Your task to perform on an android device: toggle data saver in the chrome app Image 0: 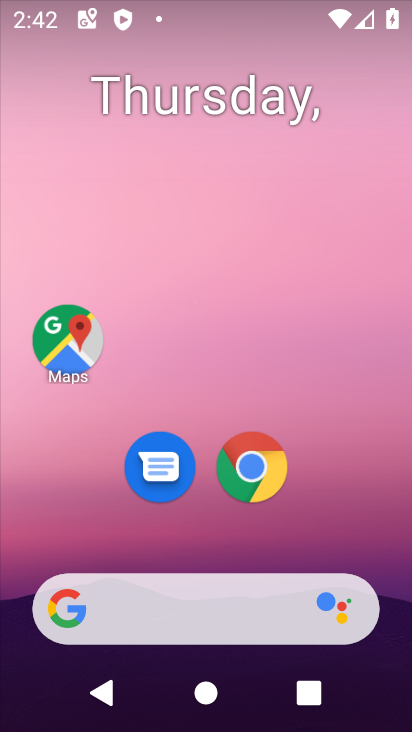
Step 0: drag from (213, 522) to (254, 186)
Your task to perform on an android device: toggle data saver in the chrome app Image 1: 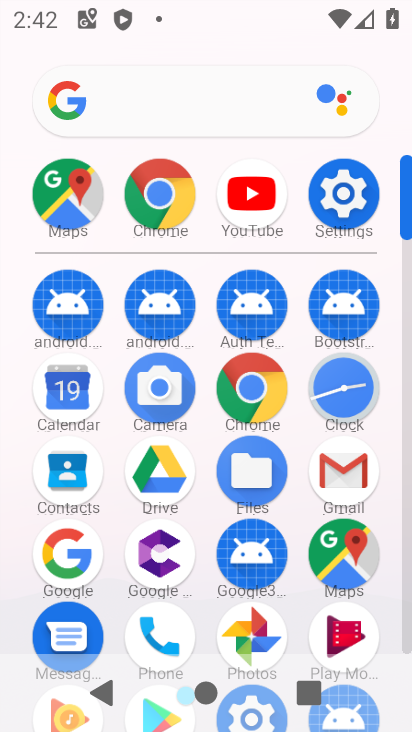
Step 1: drag from (209, 590) to (204, 247)
Your task to perform on an android device: toggle data saver in the chrome app Image 2: 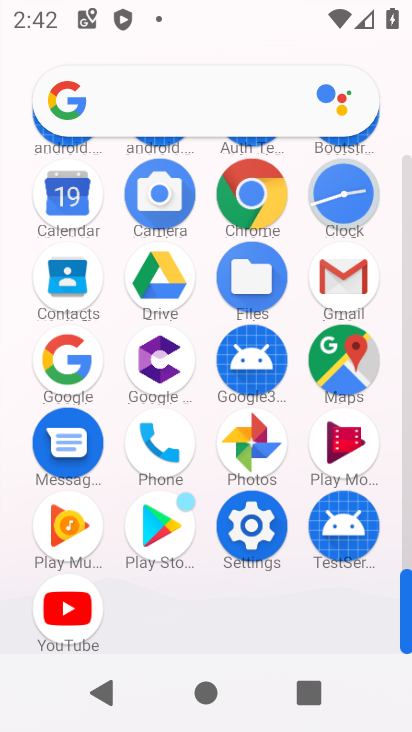
Step 2: click (257, 195)
Your task to perform on an android device: toggle data saver in the chrome app Image 3: 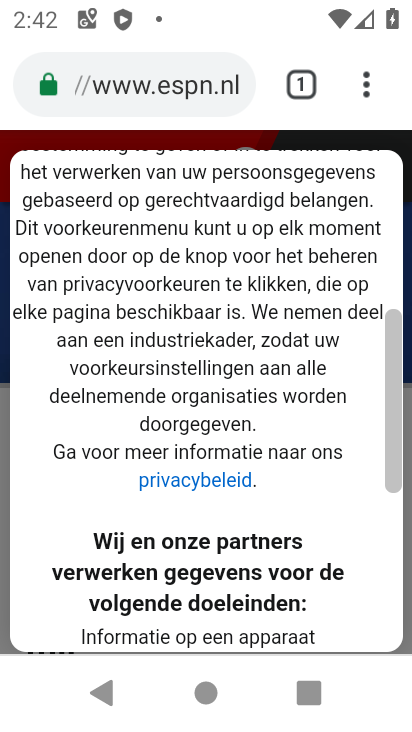
Step 3: click (369, 80)
Your task to perform on an android device: toggle data saver in the chrome app Image 4: 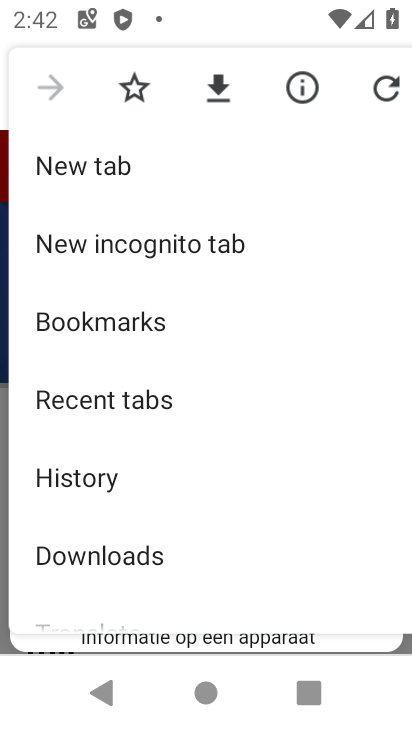
Step 4: drag from (195, 563) to (259, 85)
Your task to perform on an android device: toggle data saver in the chrome app Image 5: 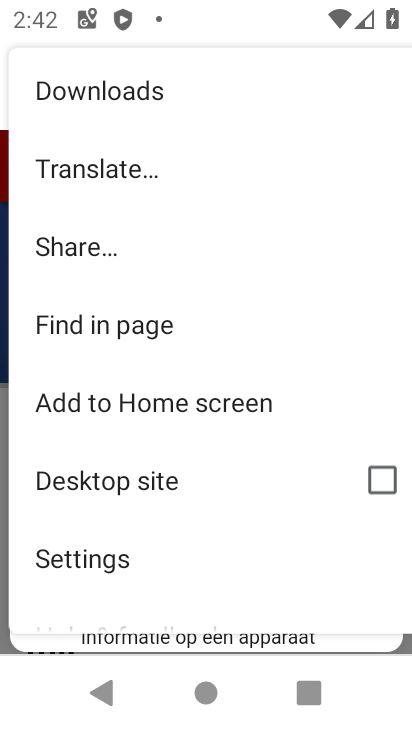
Step 5: click (145, 570)
Your task to perform on an android device: toggle data saver in the chrome app Image 6: 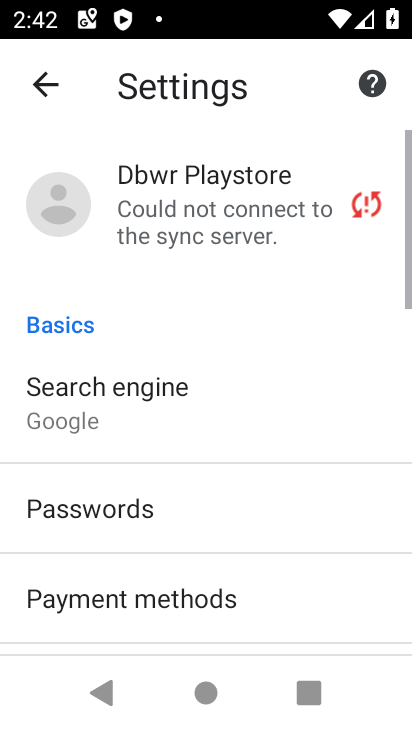
Step 6: drag from (186, 577) to (238, 191)
Your task to perform on an android device: toggle data saver in the chrome app Image 7: 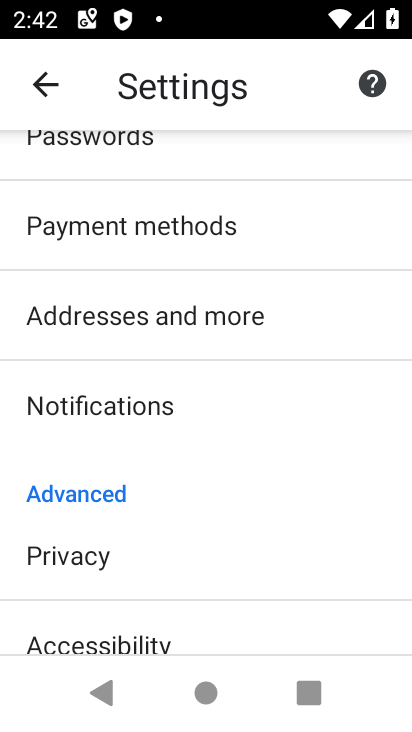
Step 7: drag from (170, 591) to (248, 172)
Your task to perform on an android device: toggle data saver in the chrome app Image 8: 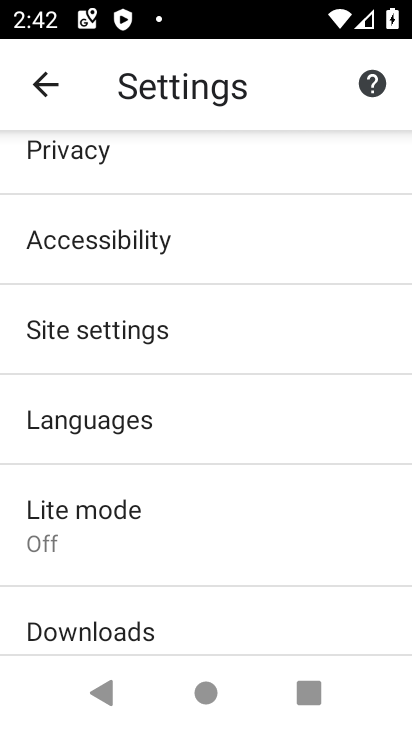
Step 8: click (159, 532)
Your task to perform on an android device: toggle data saver in the chrome app Image 9: 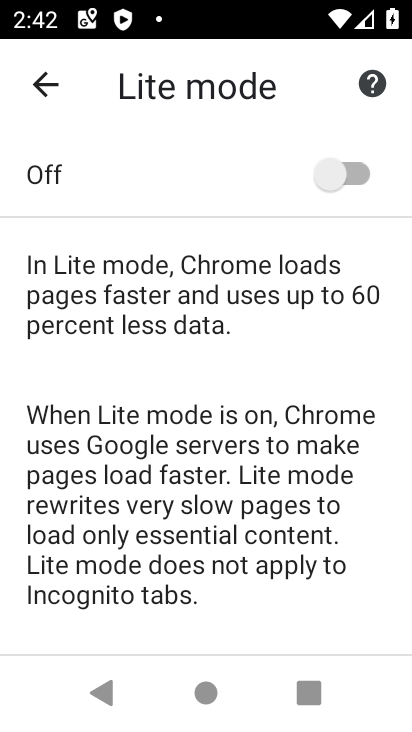
Step 9: click (327, 187)
Your task to perform on an android device: toggle data saver in the chrome app Image 10: 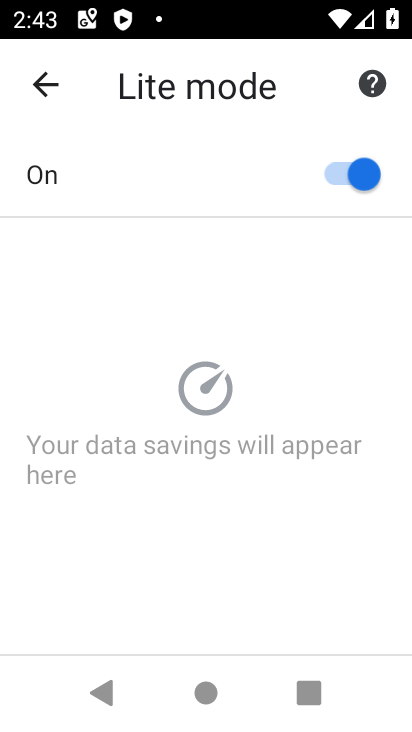
Step 10: task complete